Your task to perform on an android device: turn on the 24-hour format for clock Image 0: 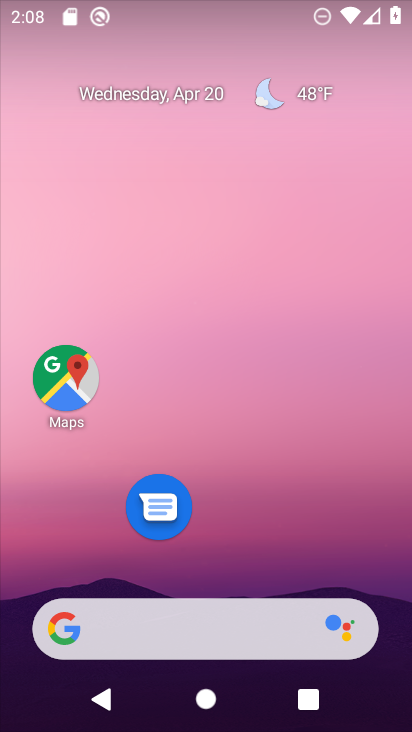
Step 0: drag from (208, 724) to (218, 110)
Your task to perform on an android device: turn on the 24-hour format for clock Image 1: 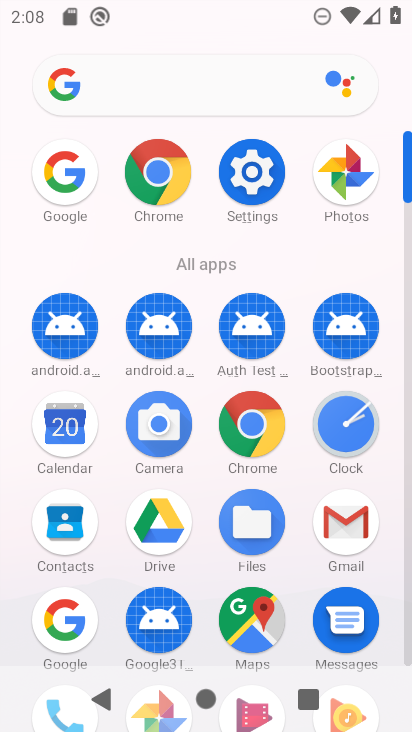
Step 1: click (345, 425)
Your task to perform on an android device: turn on the 24-hour format for clock Image 2: 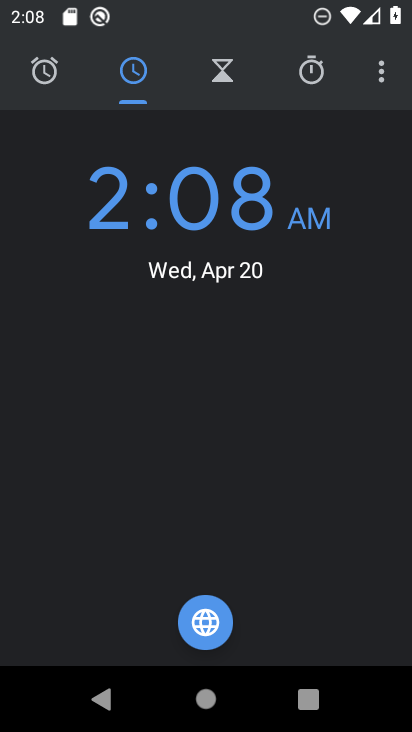
Step 2: click (381, 78)
Your task to perform on an android device: turn on the 24-hour format for clock Image 3: 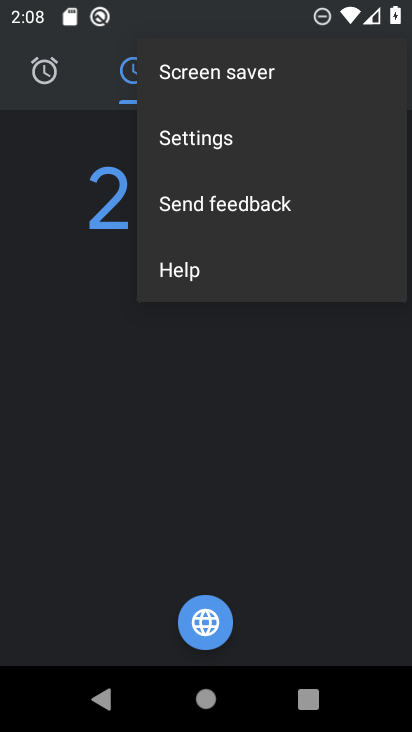
Step 3: click (196, 141)
Your task to perform on an android device: turn on the 24-hour format for clock Image 4: 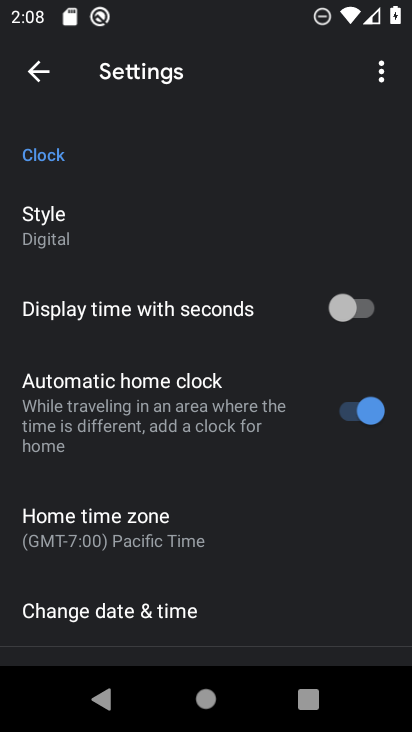
Step 4: click (130, 611)
Your task to perform on an android device: turn on the 24-hour format for clock Image 5: 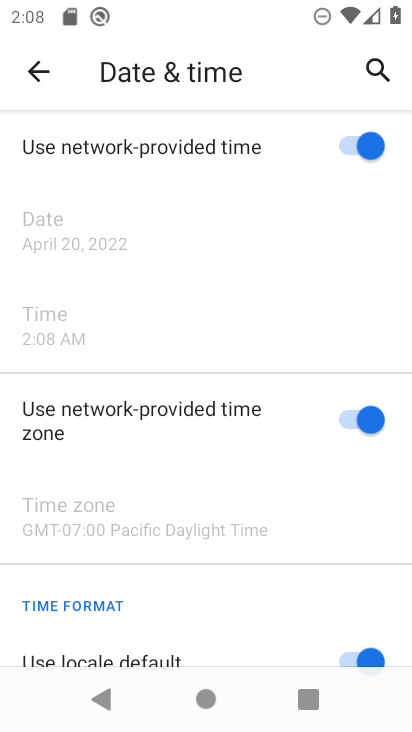
Step 5: drag from (214, 632) to (186, 262)
Your task to perform on an android device: turn on the 24-hour format for clock Image 6: 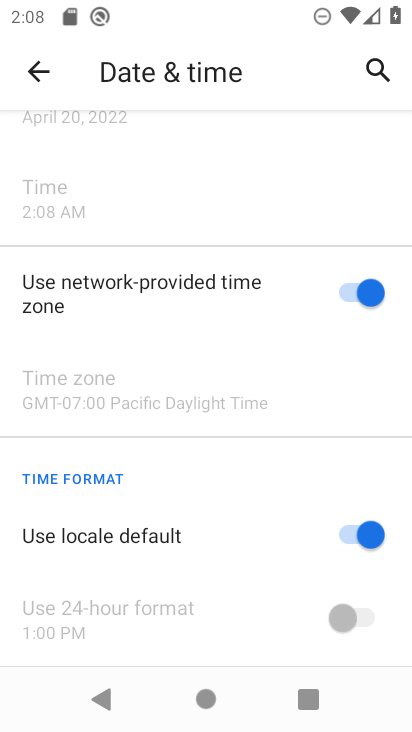
Step 6: click (359, 533)
Your task to perform on an android device: turn on the 24-hour format for clock Image 7: 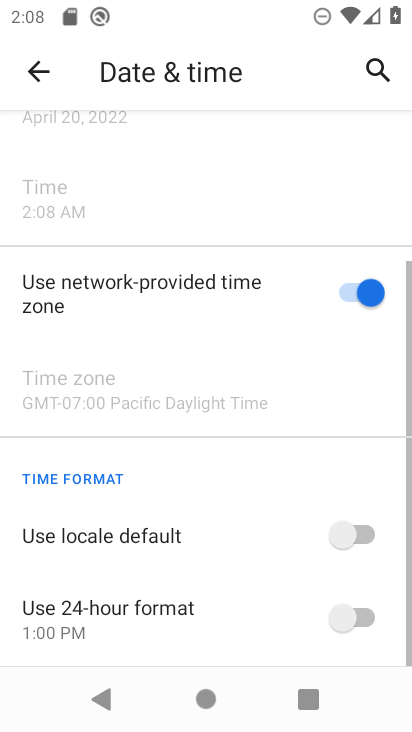
Step 7: click (365, 612)
Your task to perform on an android device: turn on the 24-hour format for clock Image 8: 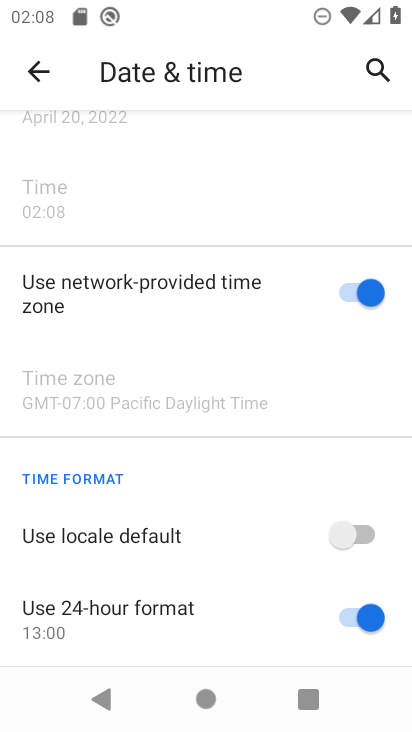
Step 8: task complete